Your task to perform on an android device: Go to Yahoo.com Image 0: 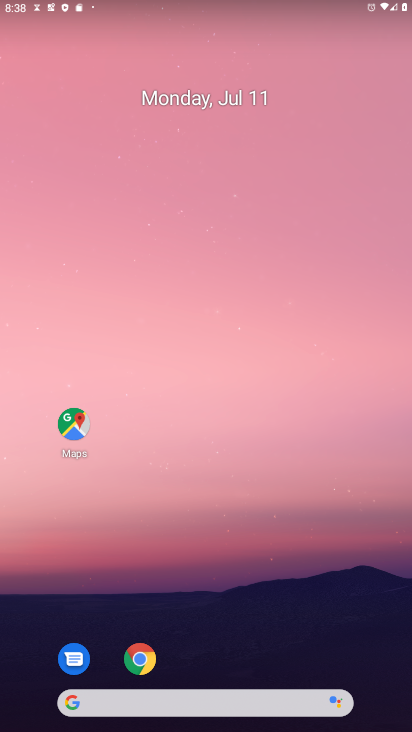
Step 0: drag from (248, 623) to (165, 17)
Your task to perform on an android device: Go to Yahoo.com Image 1: 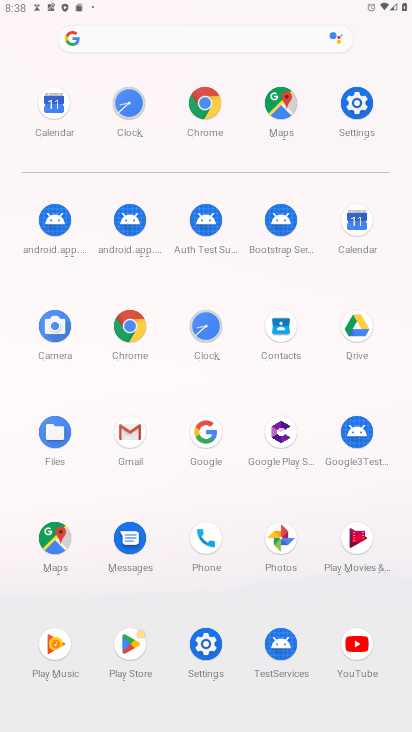
Step 1: click (200, 103)
Your task to perform on an android device: Go to Yahoo.com Image 2: 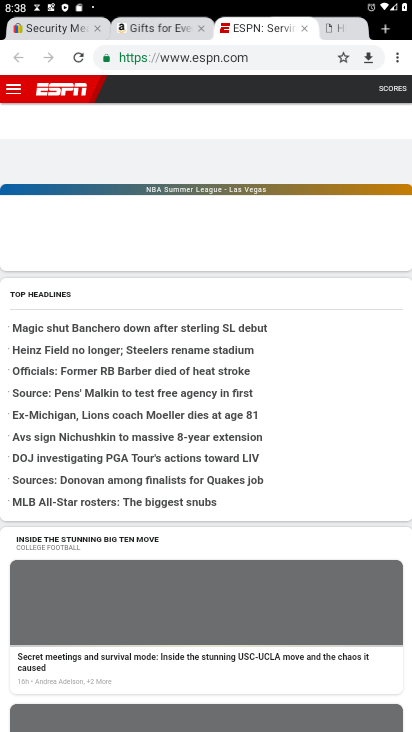
Step 2: click (339, 20)
Your task to perform on an android device: Go to Yahoo.com Image 3: 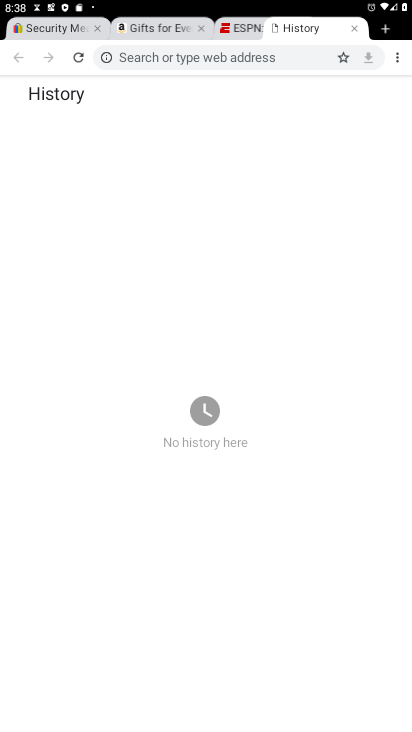
Step 3: click (357, 28)
Your task to perform on an android device: Go to Yahoo.com Image 4: 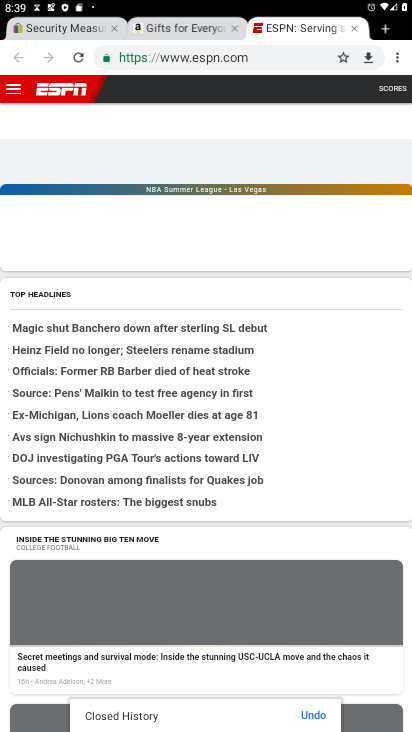
Step 4: click (353, 30)
Your task to perform on an android device: Go to Yahoo.com Image 5: 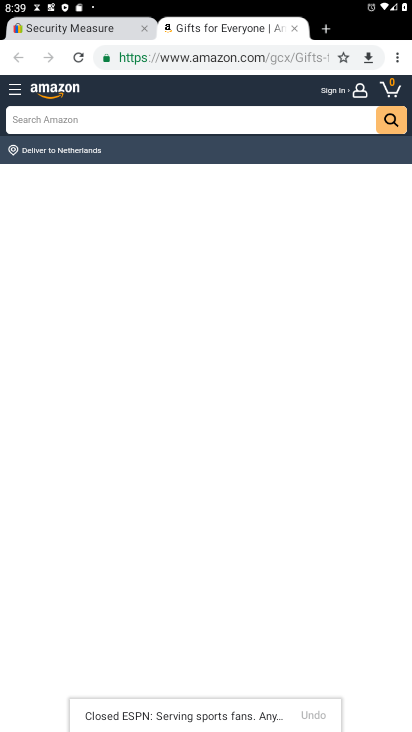
Step 5: click (295, 25)
Your task to perform on an android device: Go to Yahoo.com Image 6: 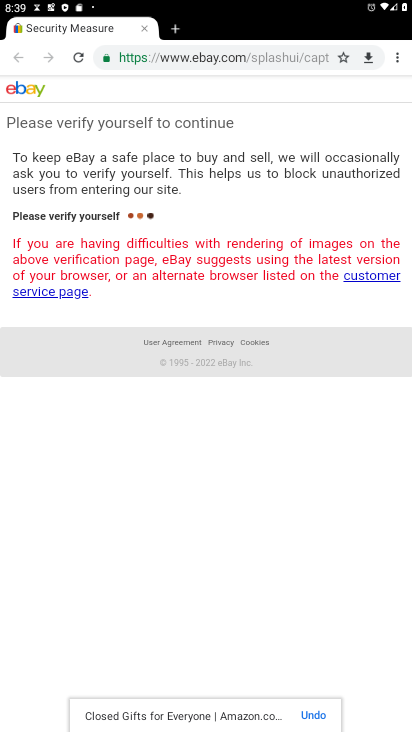
Step 6: click (177, 29)
Your task to perform on an android device: Go to Yahoo.com Image 7: 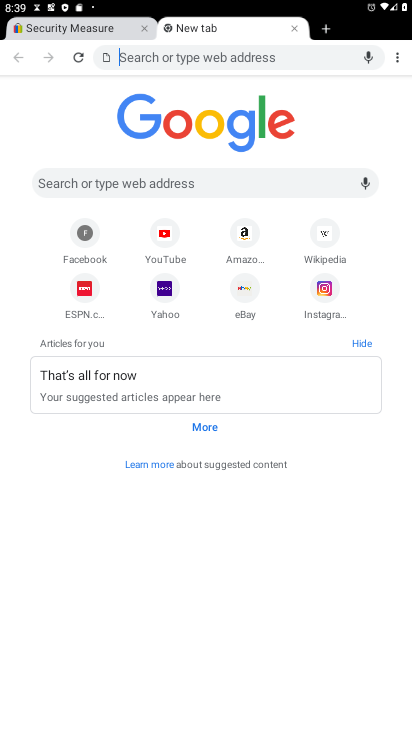
Step 7: click (158, 299)
Your task to perform on an android device: Go to Yahoo.com Image 8: 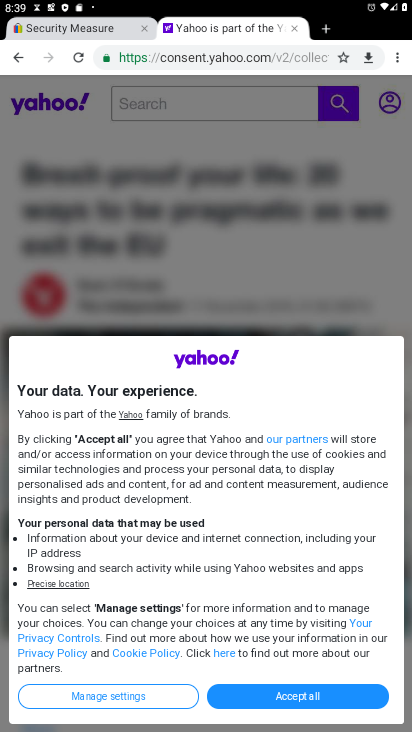
Step 8: task complete